Your task to perform on an android device: check android version Image 0: 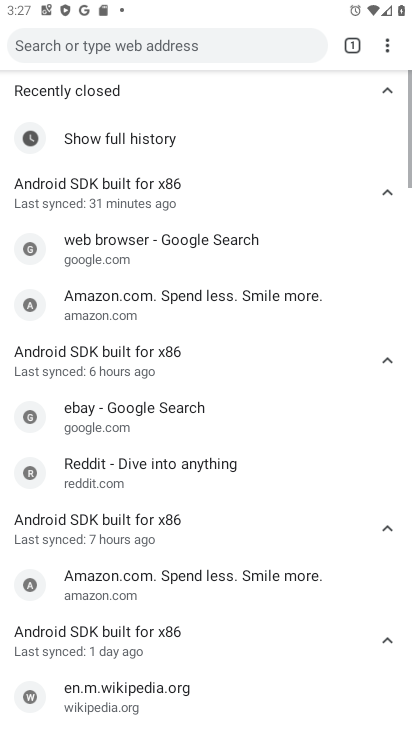
Step 0: drag from (212, 667) to (247, 42)
Your task to perform on an android device: check android version Image 1: 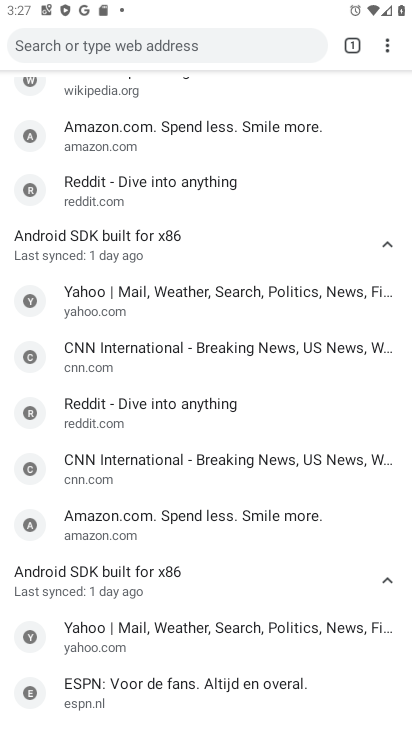
Step 1: press home button
Your task to perform on an android device: check android version Image 2: 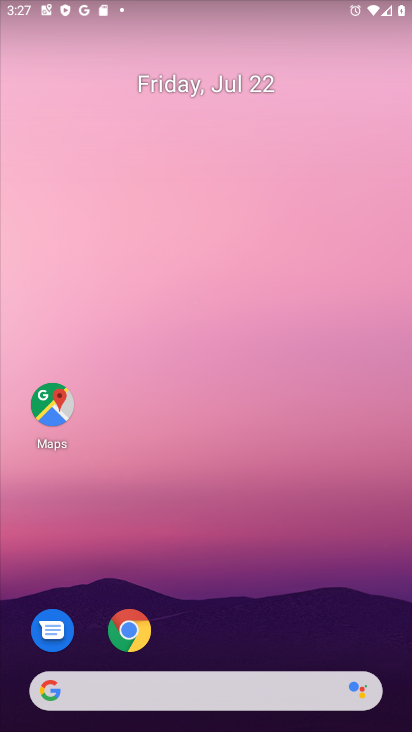
Step 2: drag from (210, 699) to (195, 155)
Your task to perform on an android device: check android version Image 3: 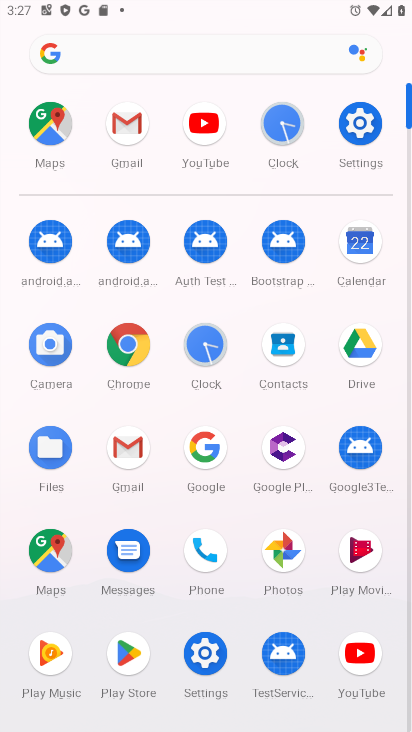
Step 3: click (204, 654)
Your task to perform on an android device: check android version Image 4: 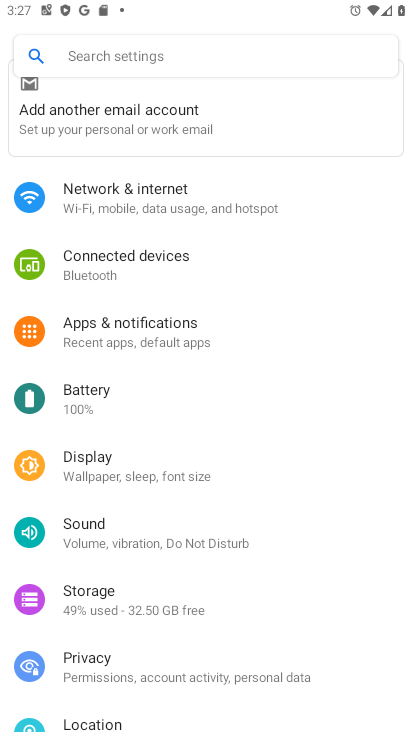
Step 4: drag from (69, 642) to (9, 185)
Your task to perform on an android device: check android version Image 5: 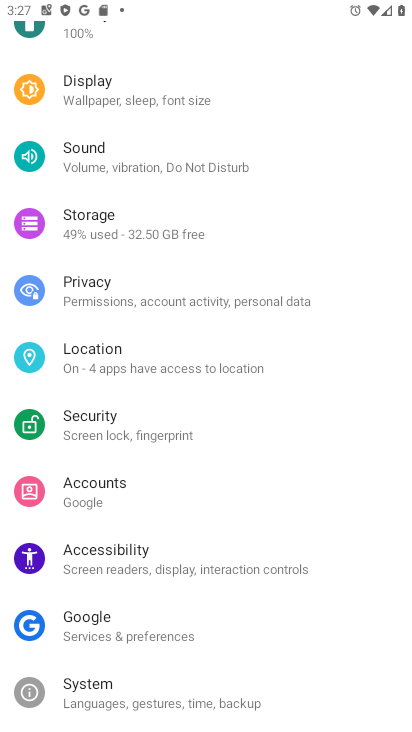
Step 5: drag from (124, 220) to (112, 108)
Your task to perform on an android device: check android version Image 6: 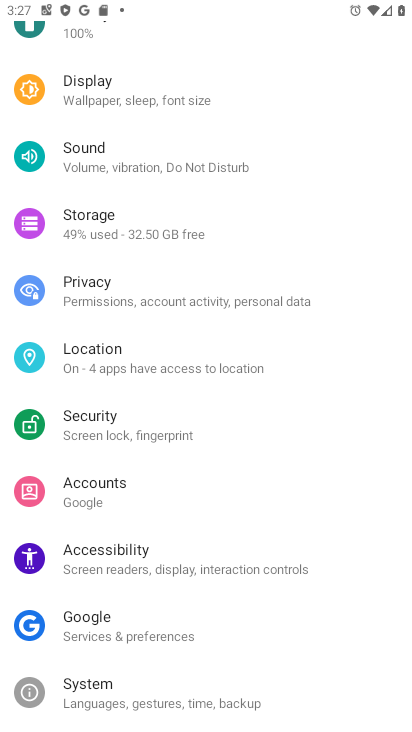
Step 6: drag from (201, 685) to (198, 258)
Your task to perform on an android device: check android version Image 7: 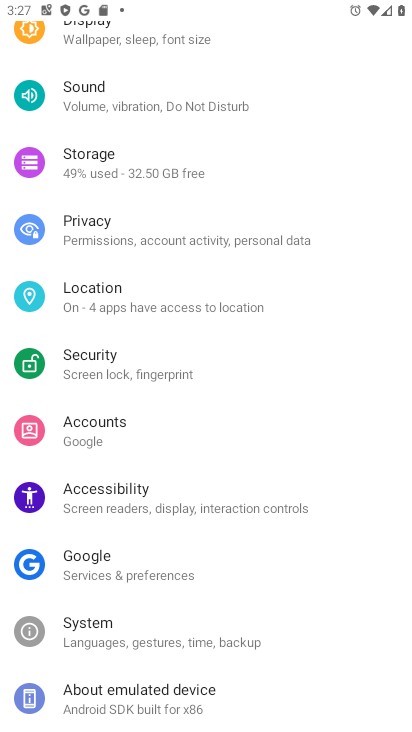
Step 7: click (119, 697)
Your task to perform on an android device: check android version Image 8: 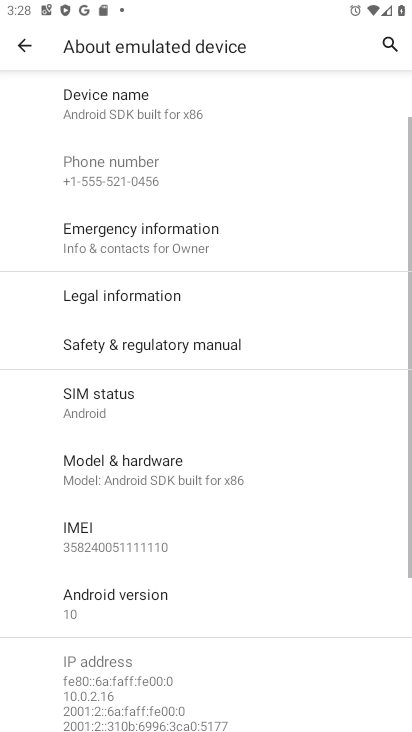
Step 8: click (125, 610)
Your task to perform on an android device: check android version Image 9: 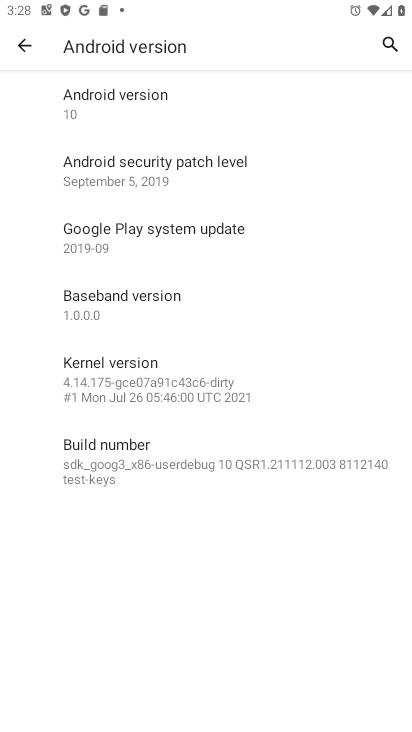
Step 9: task complete